Your task to perform on an android device: Open notification settings Image 0: 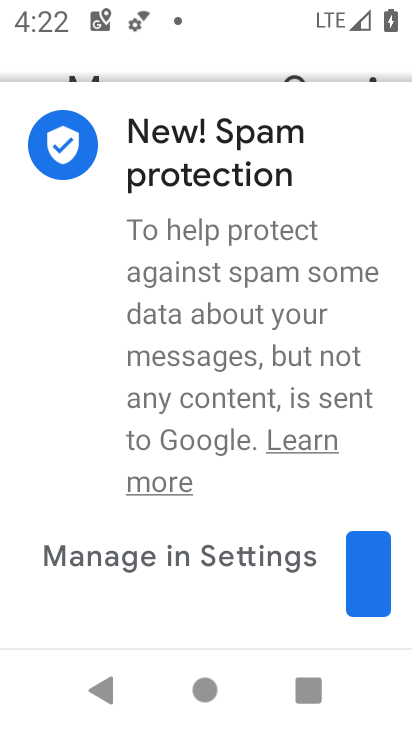
Step 0: press home button
Your task to perform on an android device: Open notification settings Image 1: 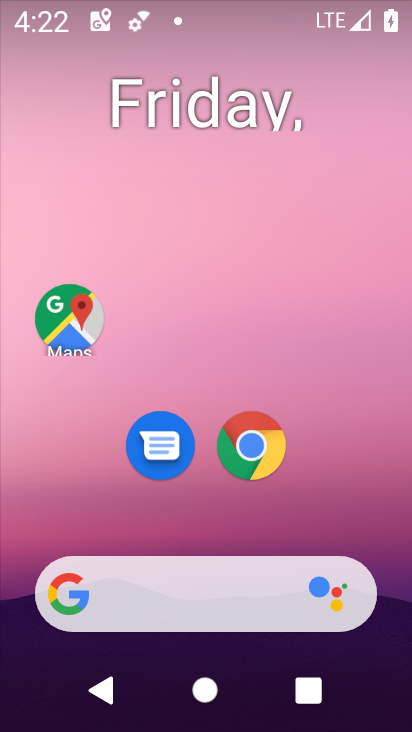
Step 1: drag from (385, 520) to (324, 164)
Your task to perform on an android device: Open notification settings Image 2: 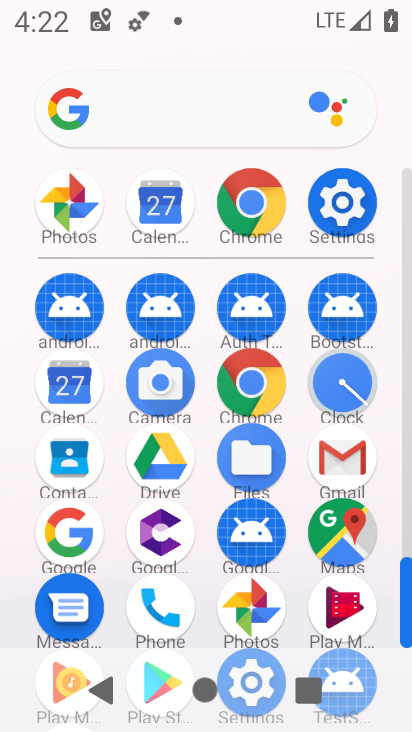
Step 2: drag from (385, 402) to (390, 276)
Your task to perform on an android device: Open notification settings Image 3: 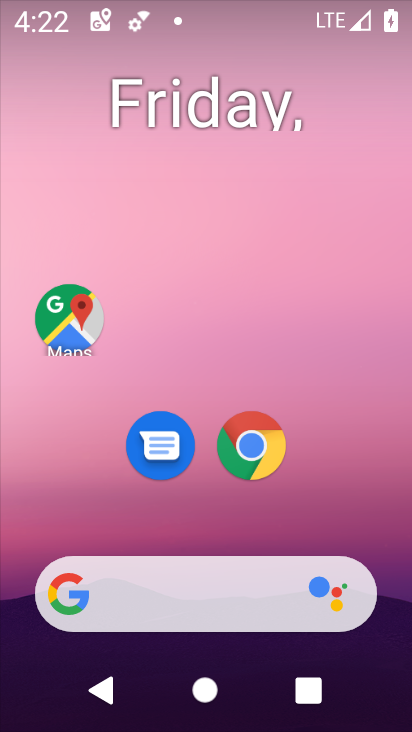
Step 3: drag from (383, 508) to (313, 77)
Your task to perform on an android device: Open notification settings Image 4: 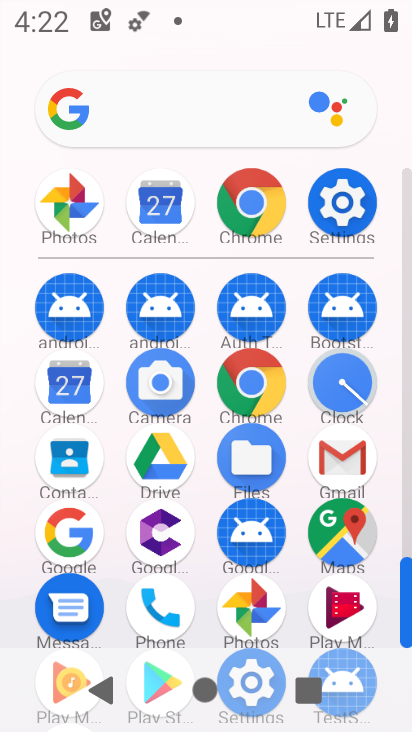
Step 4: click (333, 210)
Your task to perform on an android device: Open notification settings Image 5: 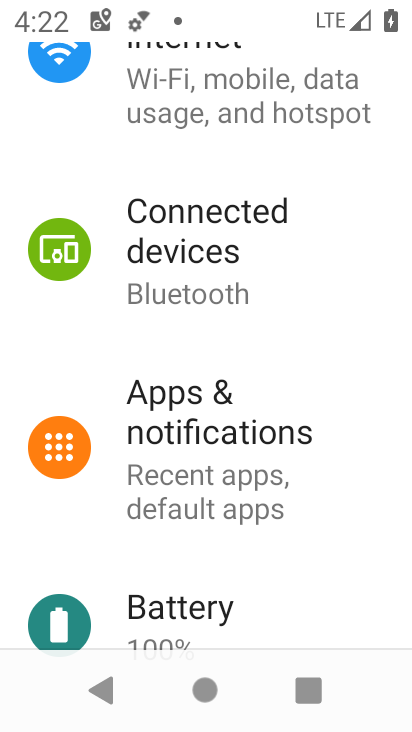
Step 5: click (291, 427)
Your task to perform on an android device: Open notification settings Image 6: 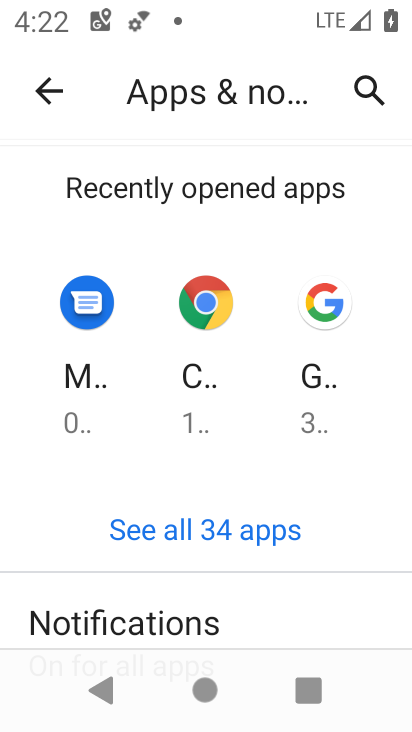
Step 6: task complete